Your task to perform on an android device: Go to settings Image 0: 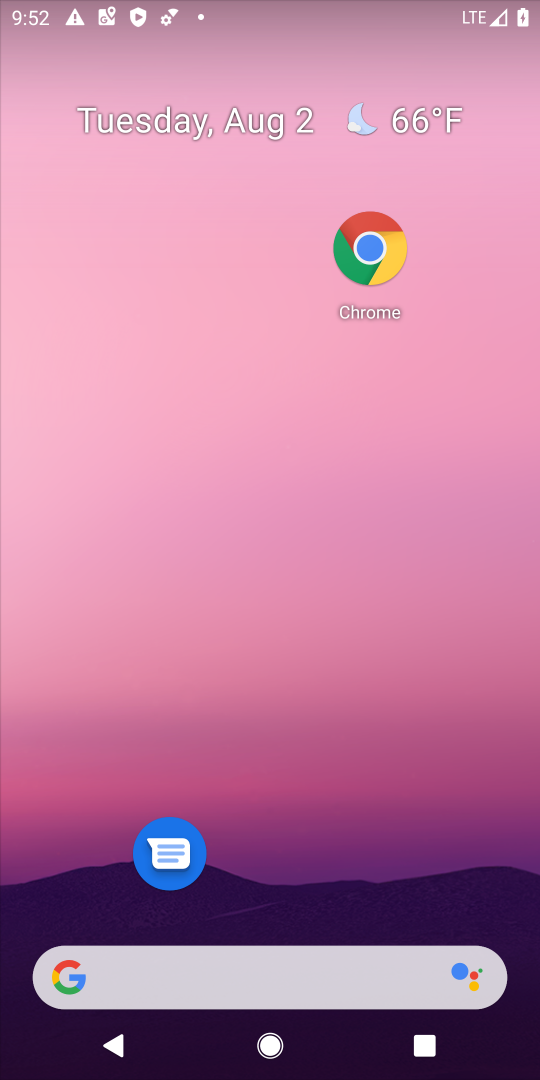
Step 0: drag from (224, 905) to (137, 52)
Your task to perform on an android device: Go to settings Image 1: 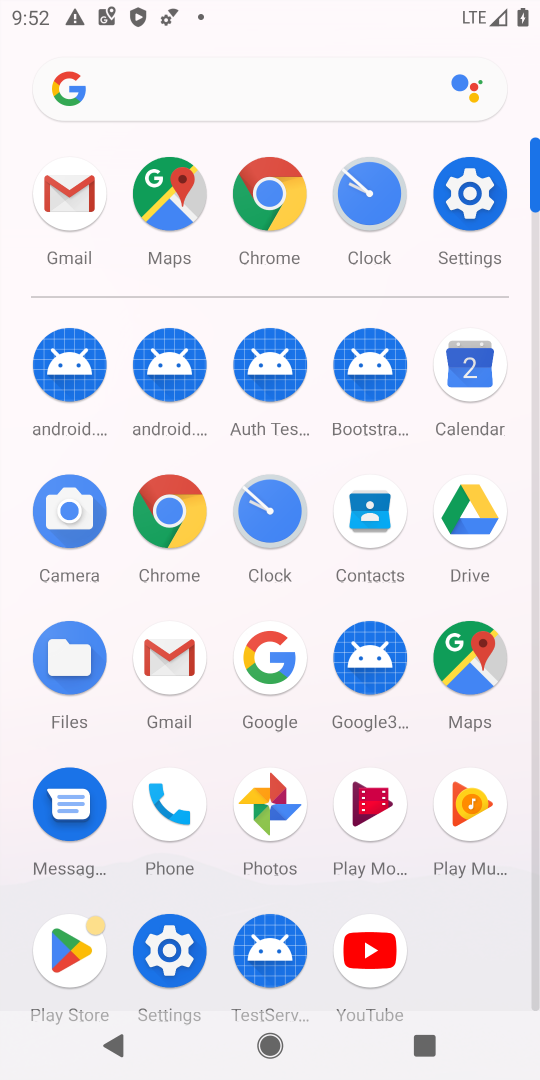
Step 1: click (454, 177)
Your task to perform on an android device: Go to settings Image 2: 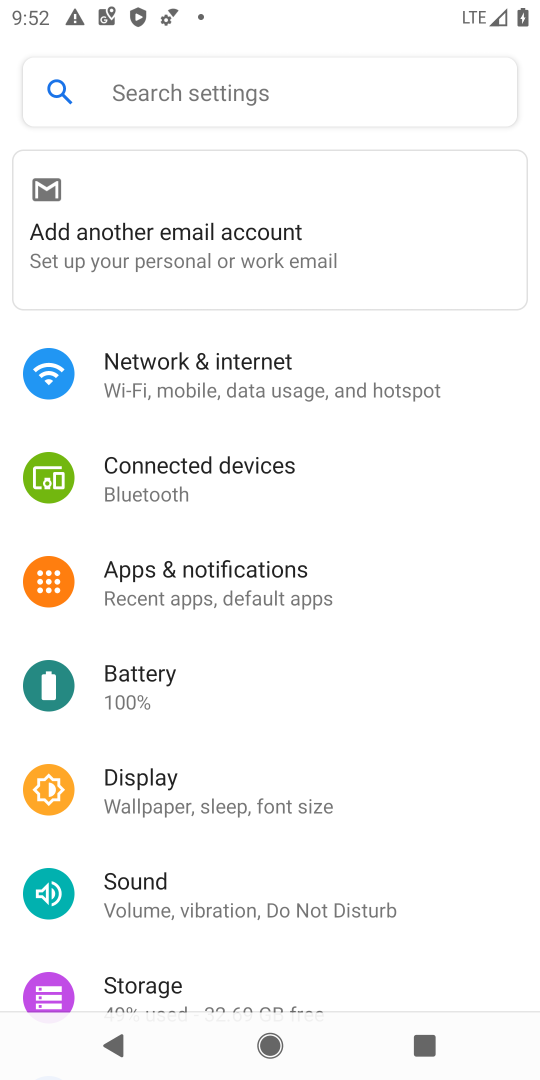
Step 2: task complete